Your task to perform on an android device: turn on translation in the chrome app Image 0: 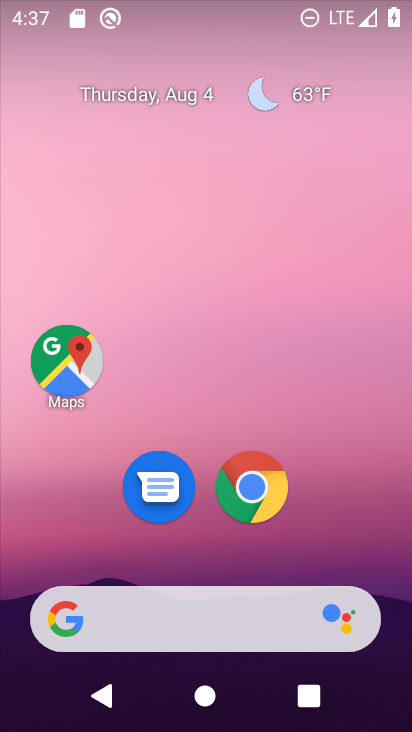
Step 0: click (265, 502)
Your task to perform on an android device: turn on translation in the chrome app Image 1: 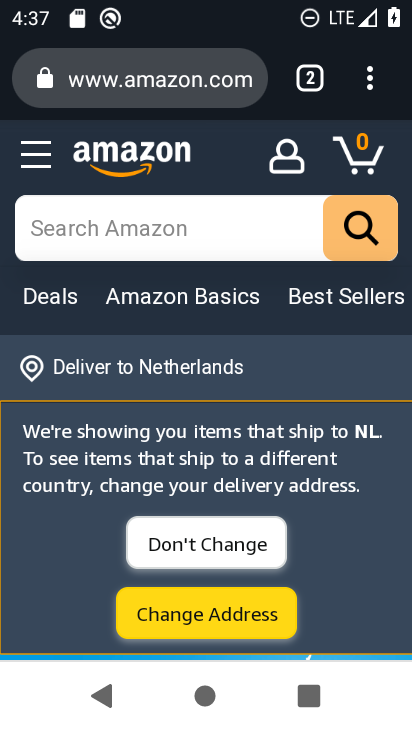
Step 1: drag from (377, 70) to (101, 548)
Your task to perform on an android device: turn on translation in the chrome app Image 2: 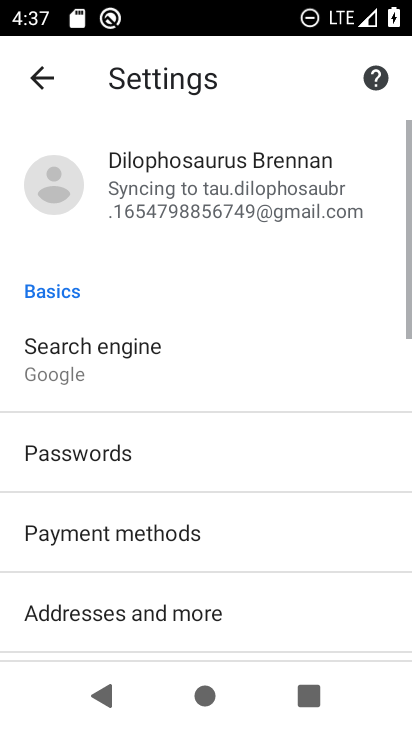
Step 2: drag from (122, 561) to (216, 23)
Your task to perform on an android device: turn on translation in the chrome app Image 3: 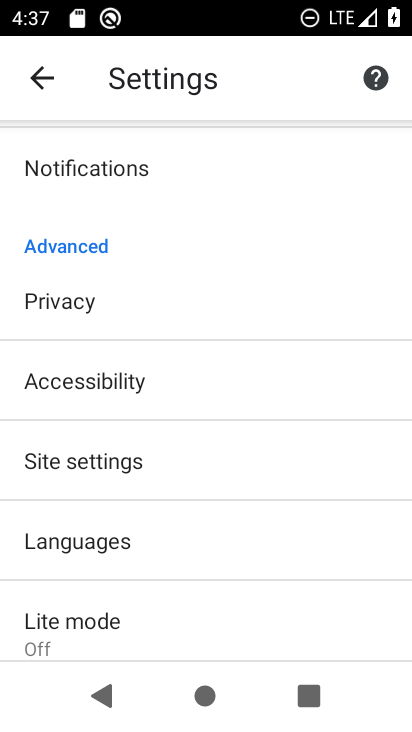
Step 3: click (113, 561)
Your task to perform on an android device: turn on translation in the chrome app Image 4: 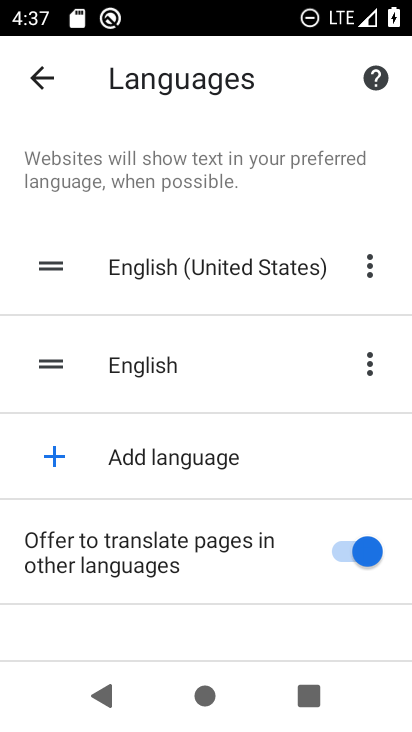
Step 4: task complete